Your task to perform on an android device: turn notification dots off Image 0: 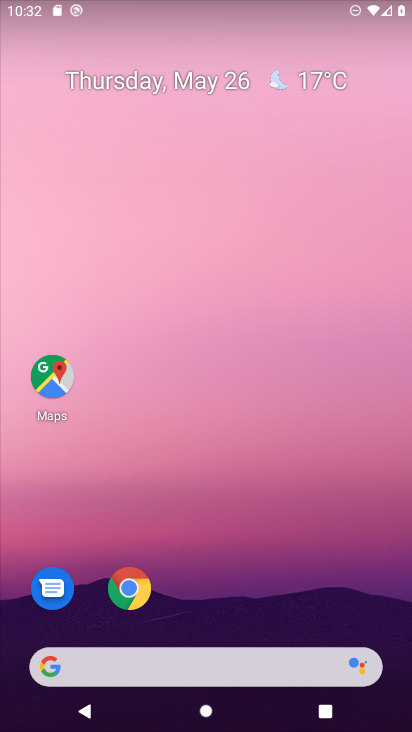
Step 0: drag from (382, 617) to (295, 228)
Your task to perform on an android device: turn notification dots off Image 1: 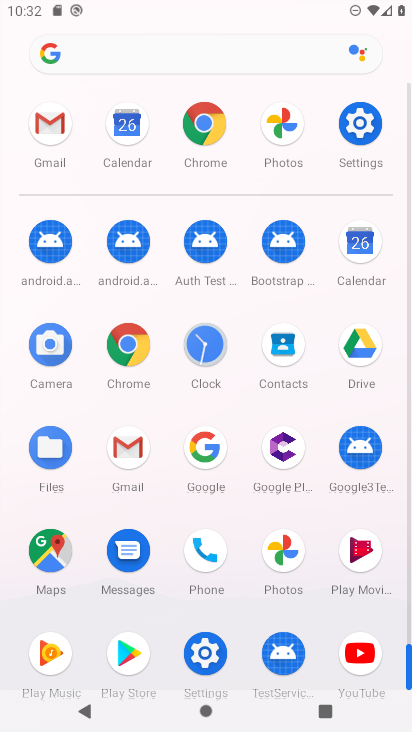
Step 1: click (203, 654)
Your task to perform on an android device: turn notification dots off Image 2: 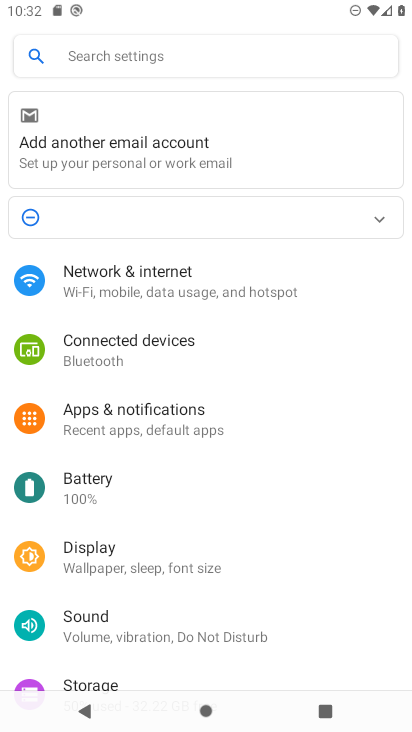
Step 2: click (147, 413)
Your task to perform on an android device: turn notification dots off Image 3: 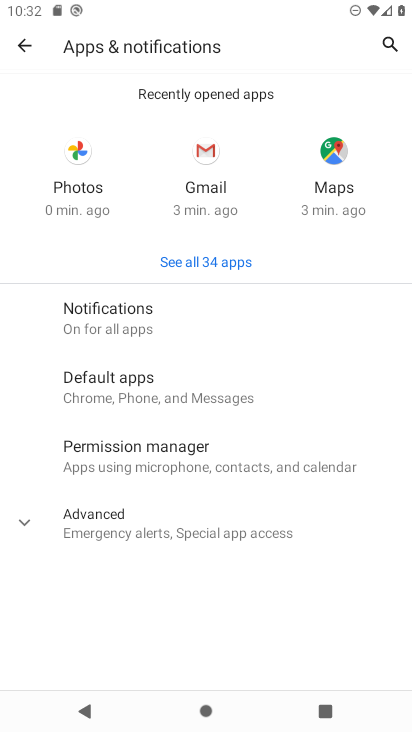
Step 3: click (104, 310)
Your task to perform on an android device: turn notification dots off Image 4: 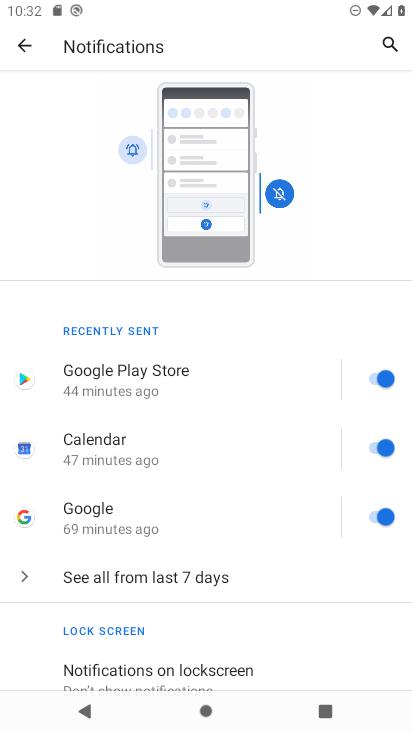
Step 4: drag from (228, 596) to (177, 159)
Your task to perform on an android device: turn notification dots off Image 5: 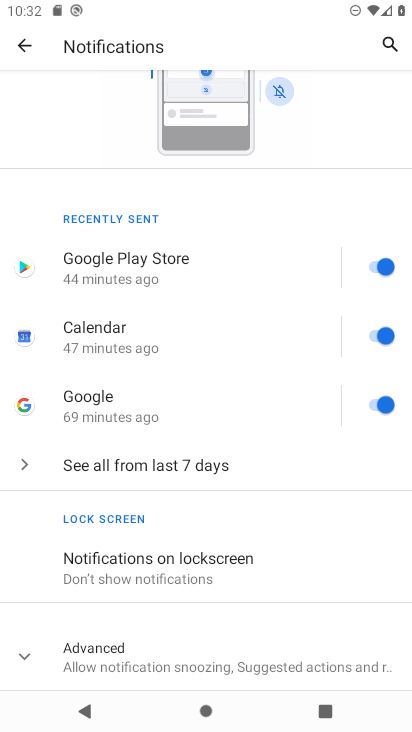
Step 5: click (45, 651)
Your task to perform on an android device: turn notification dots off Image 6: 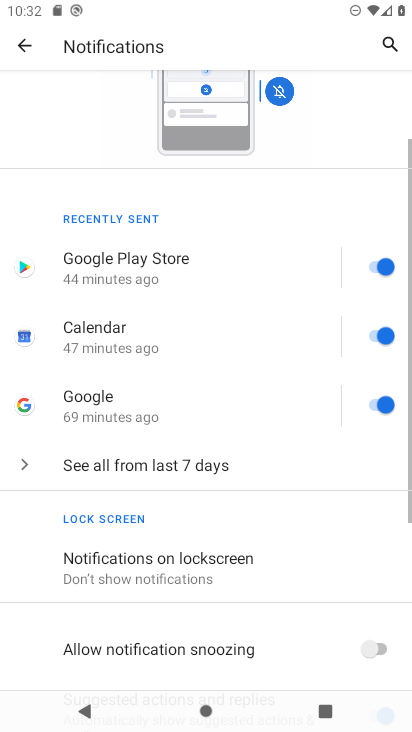
Step 6: drag from (261, 636) to (231, 231)
Your task to perform on an android device: turn notification dots off Image 7: 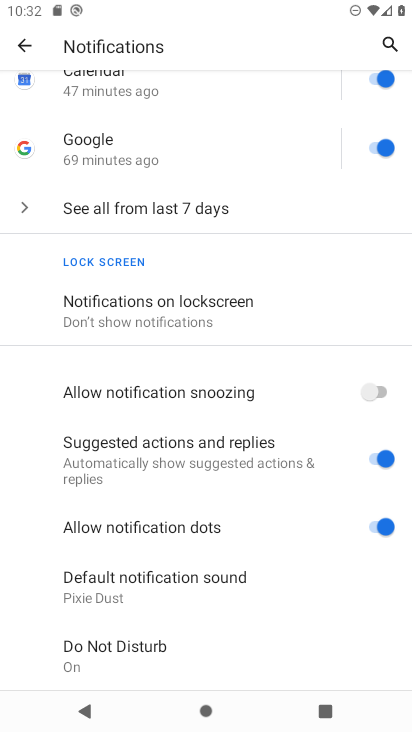
Step 7: click (371, 525)
Your task to perform on an android device: turn notification dots off Image 8: 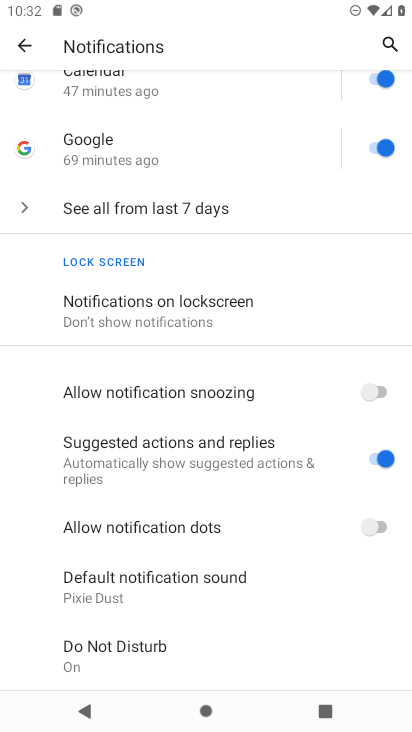
Step 8: task complete